Your task to perform on an android device: Open the calendar app, open the side menu, and click the "Day" option Image 0: 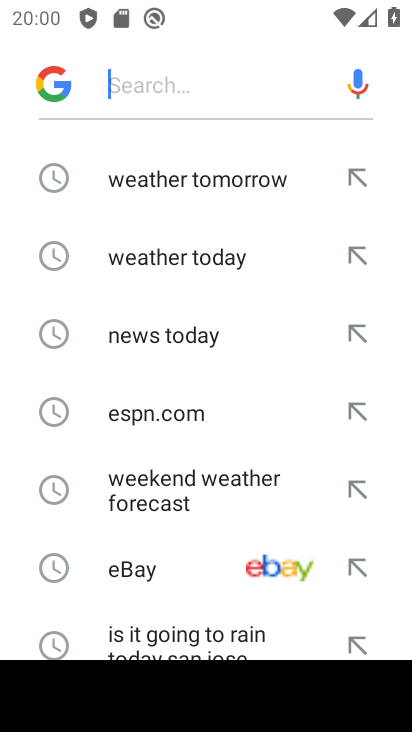
Step 0: press home button
Your task to perform on an android device: Open the calendar app, open the side menu, and click the "Day" option Image 1: 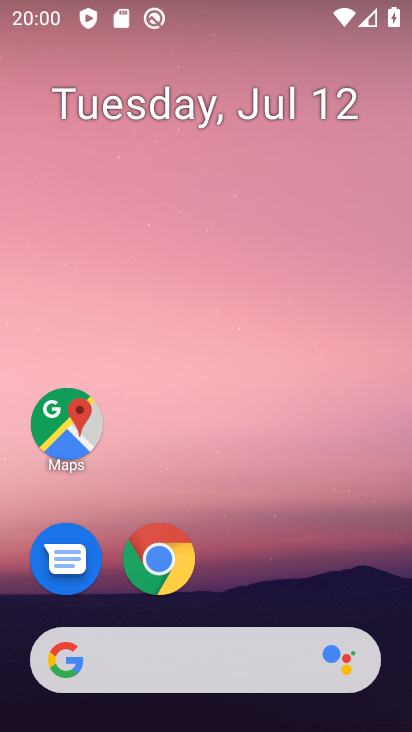
Step 1: drag from (361, 565) to (349, 93)
Your task to perform on an android device: Open the calendar app, open the side menu, and click the "Day" option Image 2: 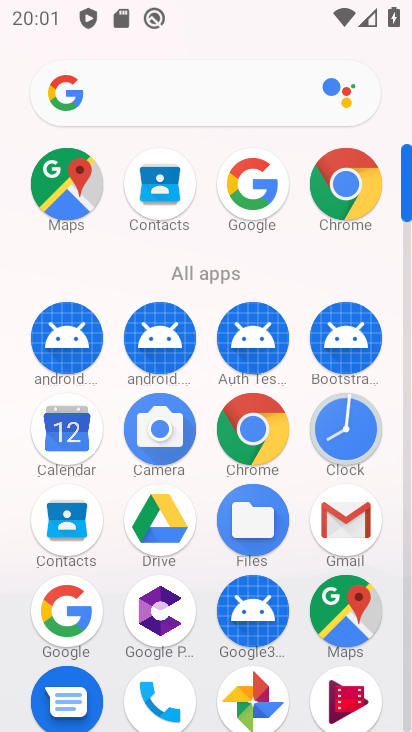
Step 2: click (78, 450)
Your task to perform on an android device: Open the calendar app, open the side menu, and click the "Day" option Image 3: 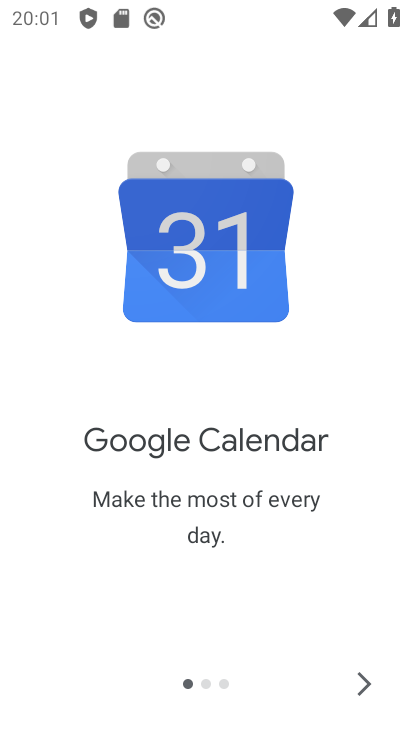
Step 3: click (354, 684)
Your task to perform on an android device: Open the calendar app, open the side menu, and click the "Day" option Image 4: 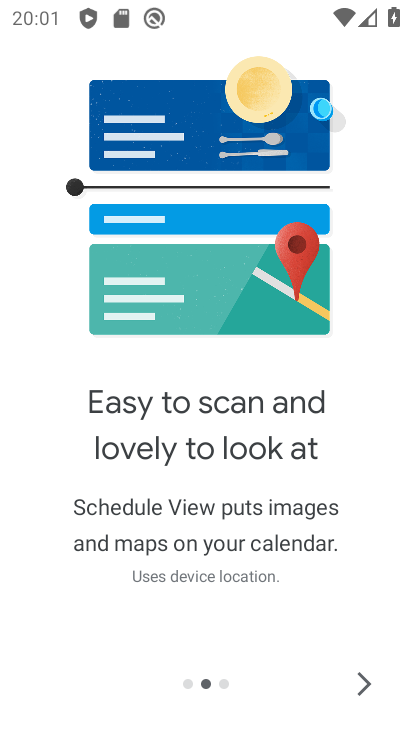
Step 4: click (354, 684)
Your task to perform on an android device: Open the calendar app, open the side menu, and click the "Day" option Image 5: 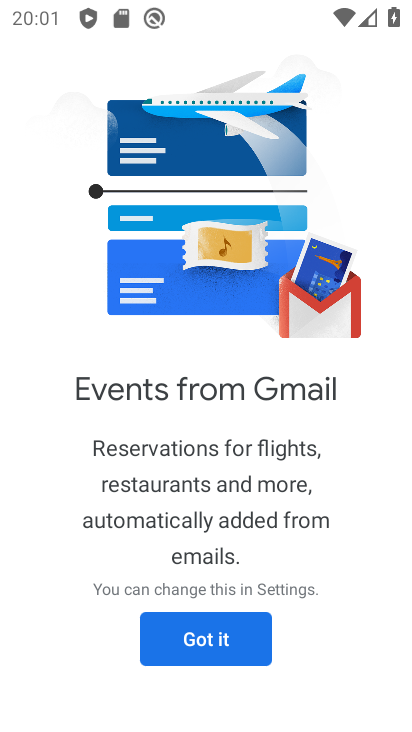
Step 5: click (232, 649)
Your task to perform on an android device: Open the calendar app, open the side menu, and click the "Day" option Image 6: 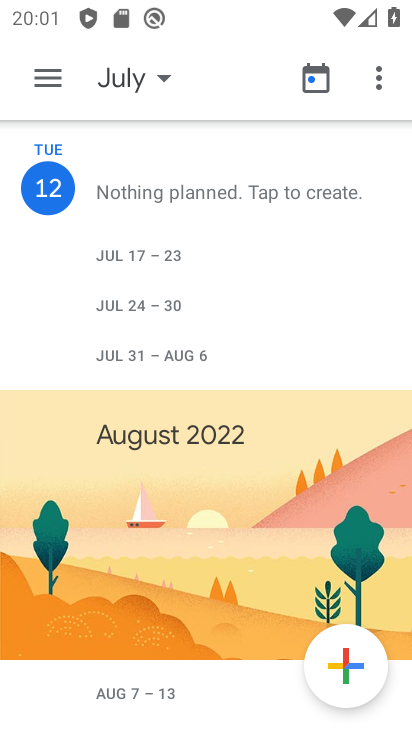
Step 6: click (43, 75)
Your task to perform on an android device: Open the calendar app, open the side menu, and click the "Day" option Image 7: 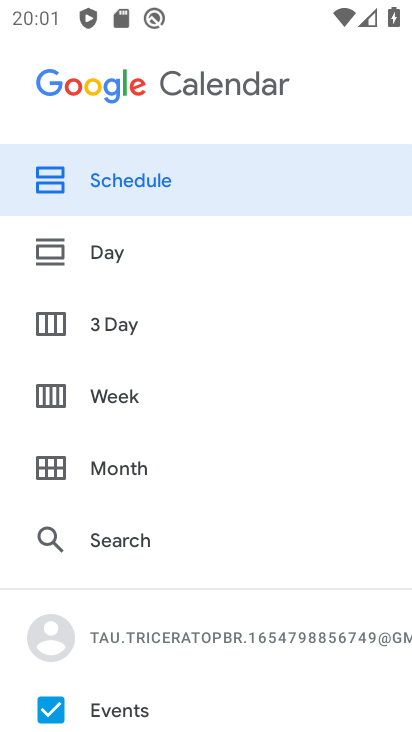
Step 7: click (115, 267)
Your task to perform on an android device: Open the calendar app, open the side menu, and click the "Day" option Image 8: 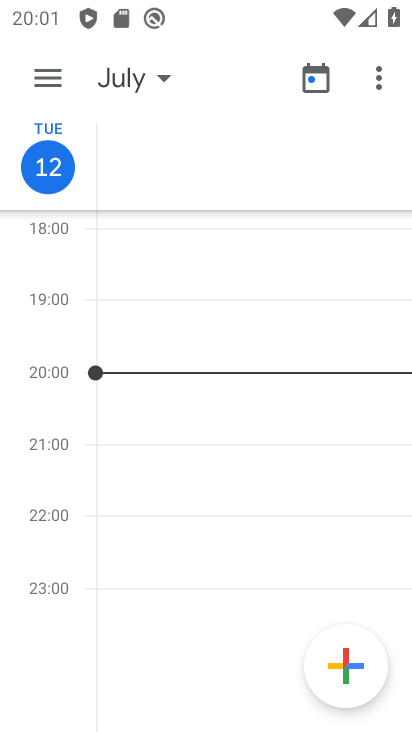
Step 8: task complete